Your task to perform on an android device: Clear the shopping cart on target. Add "dell alienware" to the cart on target, then select checkout. Image 0: 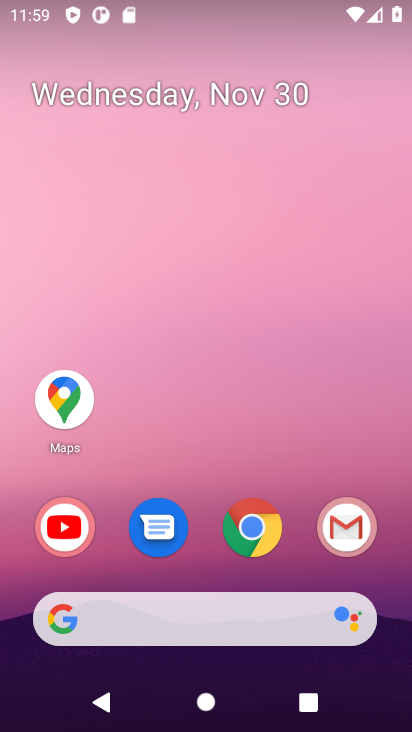
Step 0: click (261, 523)
Your task to perform on an android device: Clear the shopping cart on target. Add "dell alienware" to the cart on target, then select checkout. Image 1: 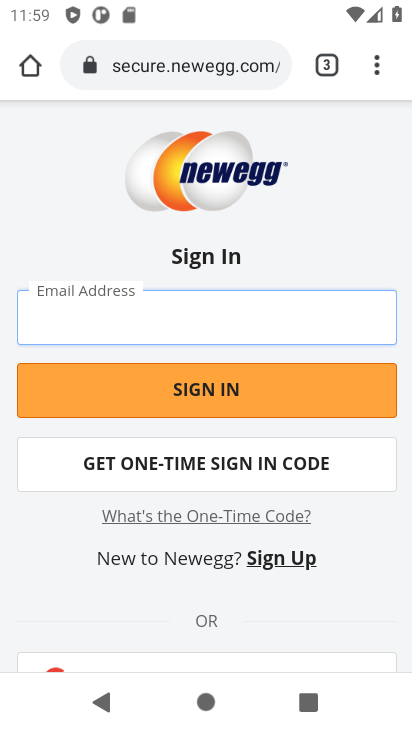
Step 1: click (226, 63)
Your task to perform on an android device: Clear the shopping cart on target. Add "dell alienware" to the cart on target, then select checkout. Image 2: 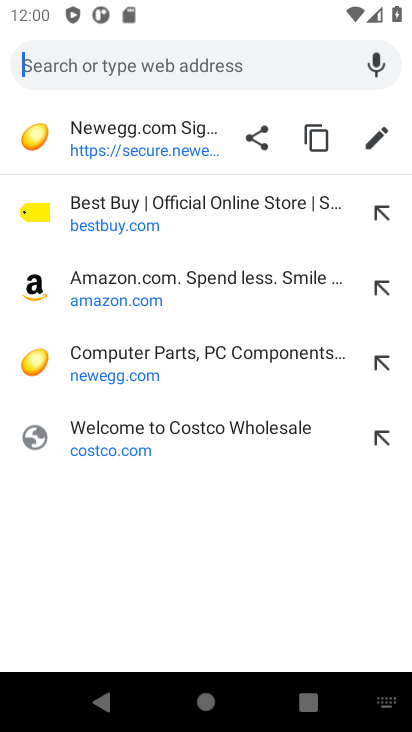
Step 2: type "target.com"
Your task to perform on an android device: Clear the shopping cart on target. Add "dell alienware" to the cart on target, then select checkout. Image 3: 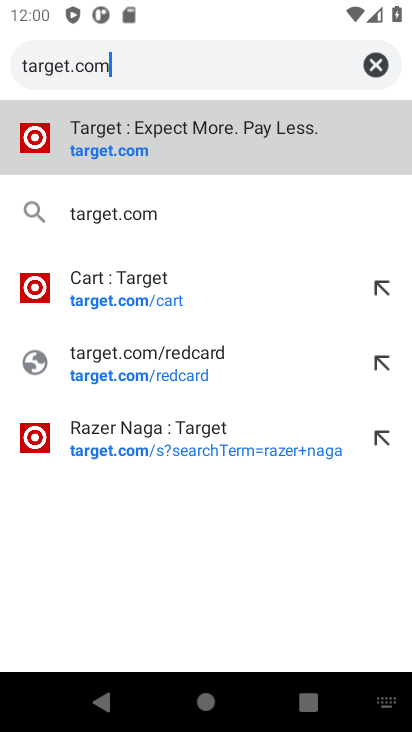
Step 3: click (135, 143)
Your task to perform on an android device: Clear the shopping cart on target. Add "dell alienware" to the cart on target, then select checkout. Image 4: 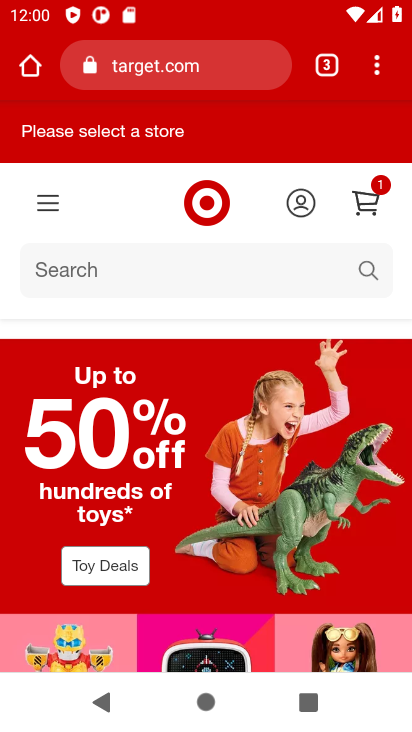
Step 4: click (358, 206)
Your task to perform on an android device: Clear the shopping cart on target. Add "dell alienware" to the cart on target, then select checkout. Image 5: 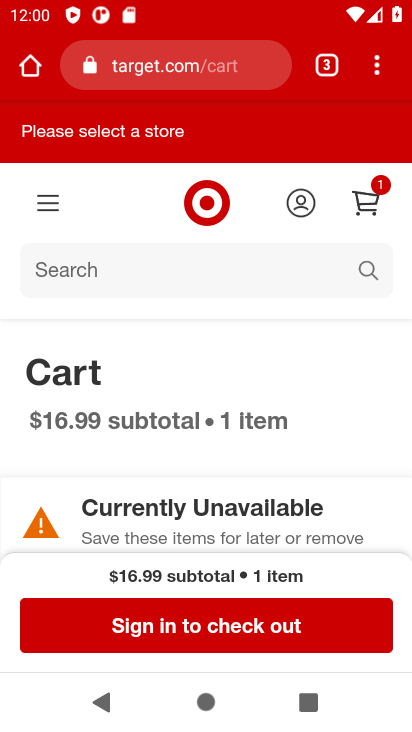
Step 5: drag from (288, 450) to (282, 184)
Your task to perform on an android device: Clear the shopping cart on target. Add "dell alienware" to the cart on target, then select checkout. Image 6: 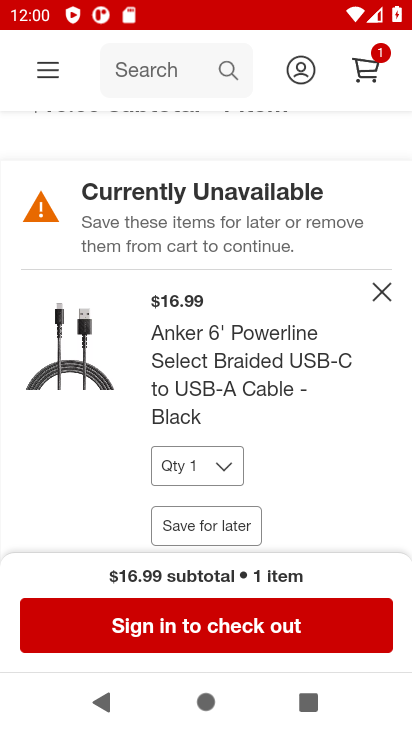
Step 6: click (381, 296)
Your task to perform on an android device: Clear the shopping cart on target. Add "dell alienware" to the cart on target, then select checkout. Image 7: 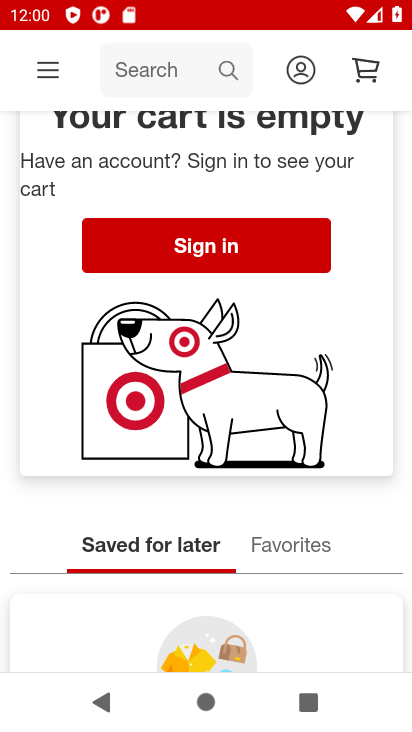
Step 7: drag from (201, 220) to (185, 602)
Your task to perform on an android device: Clear the shopping cart on target. Add "dell alienware" to the cart on target, then select checkout. Image 8: 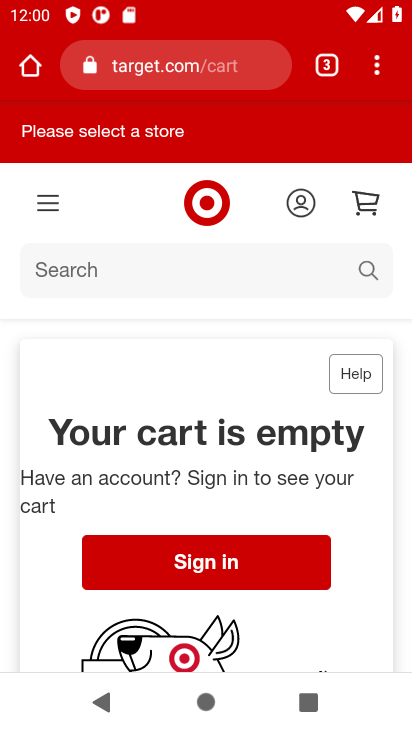
Step 8: click (92, 269)
Your task to perform on an android device: Clear the shopping cart on target. Add "dell alienware" to the cart on target, then select checkout. Image 9: 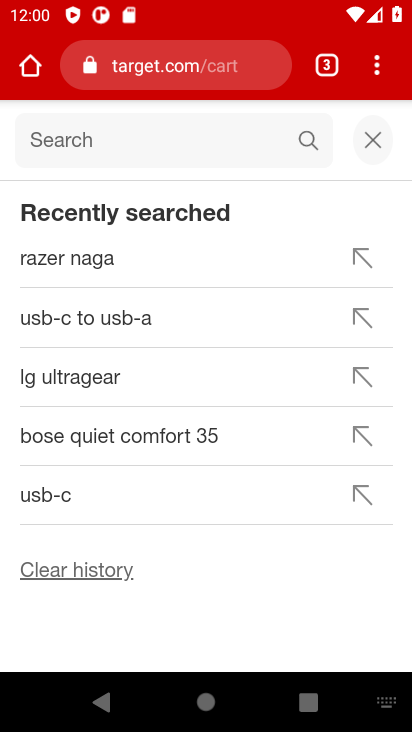
Step 9: type "dell alienware"
Your task to perform on an android device: Clear the shopping cart on target. Add "dell alienware" to the cart on target, then select checkout. Image 10: 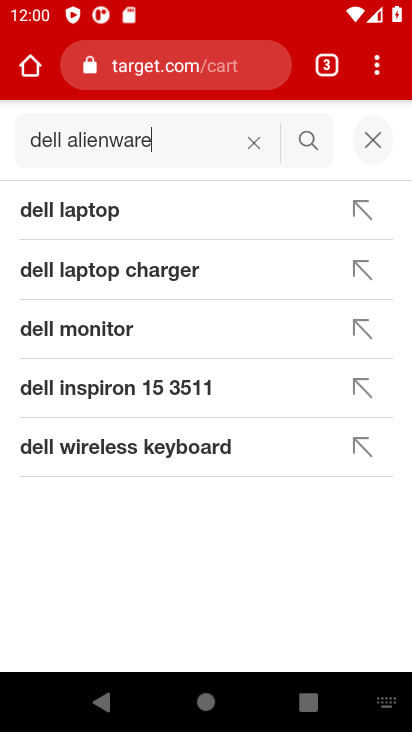
Step 10: click (306, 142)
Your task to perform on an android device: Clear the shopping cart on target. Add "dell alienware" to the cart on target, then select checkout. Image 11: 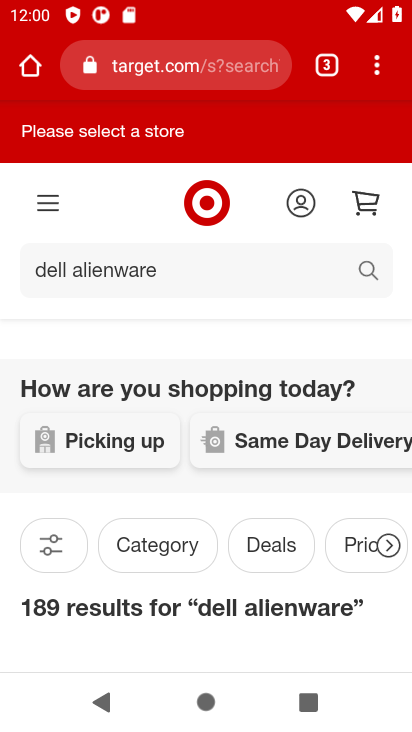
Step 11: task complete